Your task to perform on an android device: Open maps Image 0: 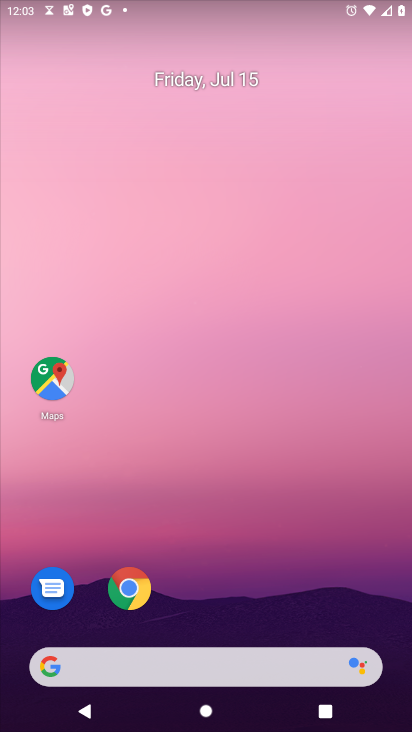
Step 0: click (54, 383)
Your task to perform on an android device: Open maps Image 1: 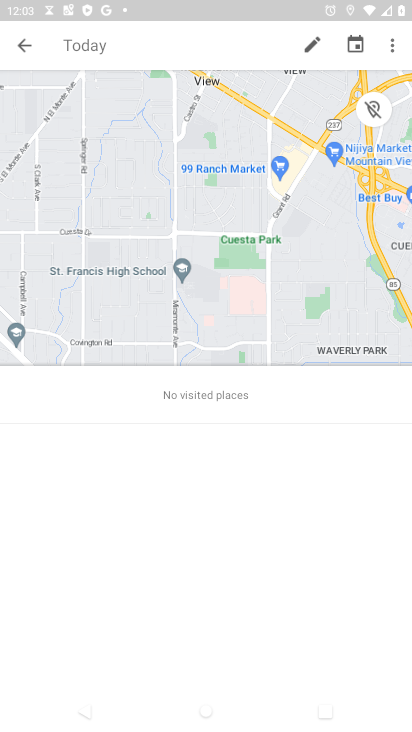
Step 1: click (29, 43)
Your task to perform on an android device: Open maps Image 2: 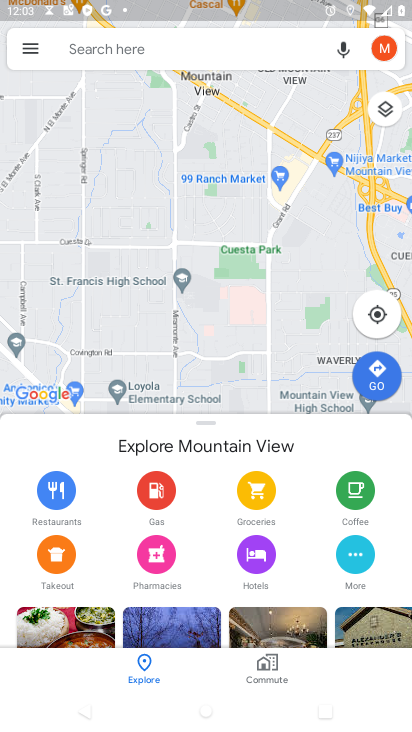
Step 2: task complete